Your task to perform on an android device: Turn off the flashlight Image 0: 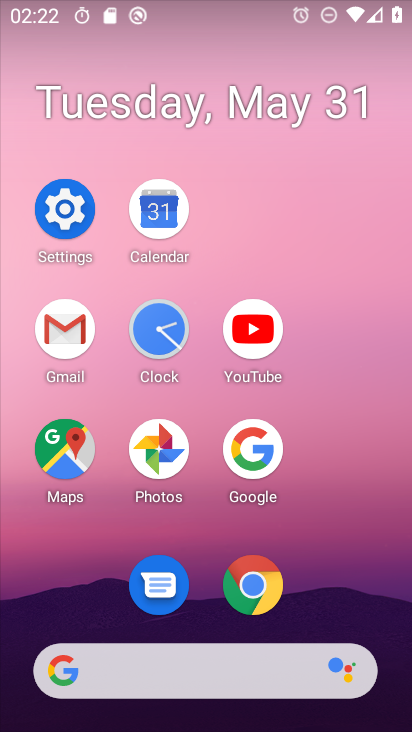
Step 0: drag from (256, 1) to (244, 519)
Your task to perform on an android device: Turn off the flashlight Image 1: 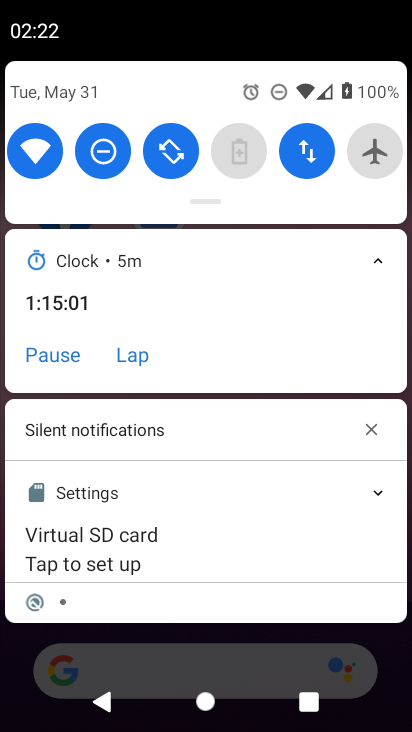
Step 1: task complete